Your task to perform on an android device: Search for seafood restaurants on Google Maps Image 0: 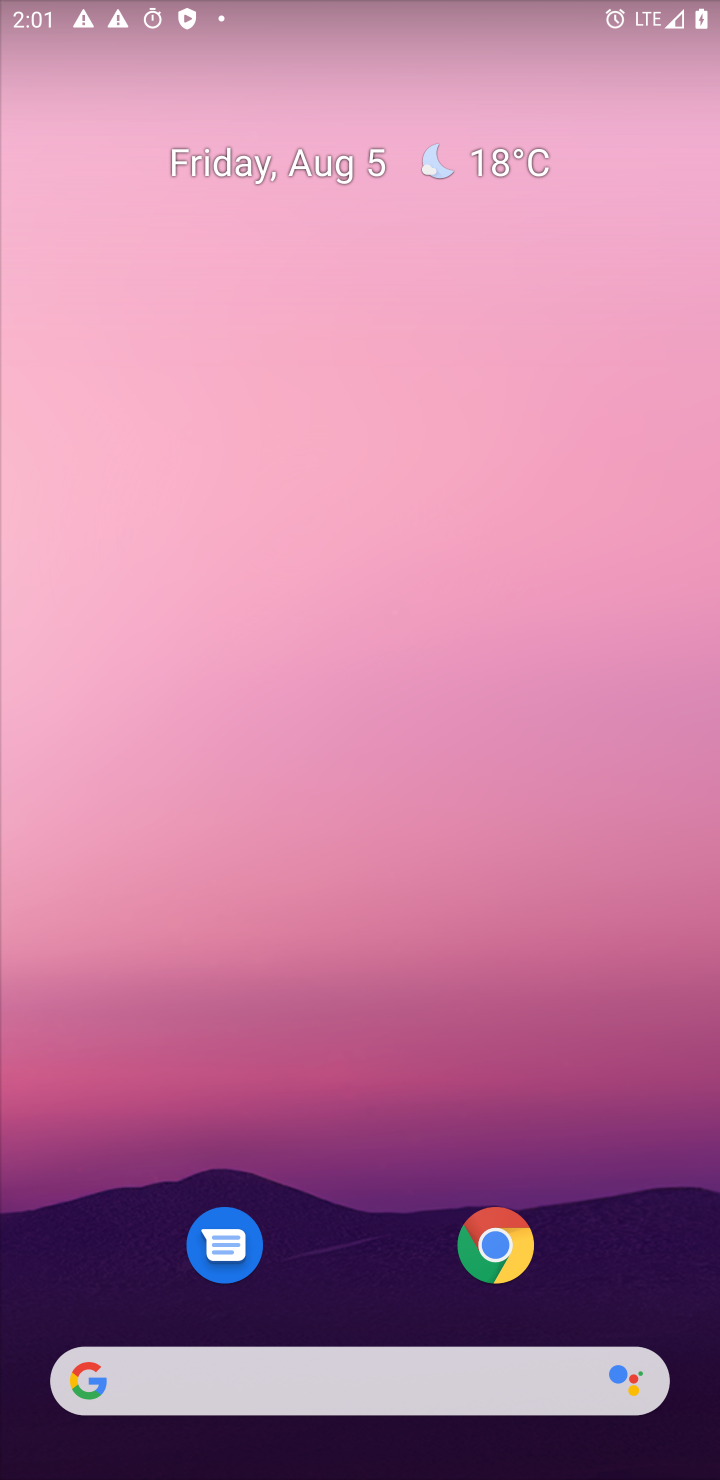
Step 0: drag from (360, 1322) to (291, 142)
Your task to perform on an android device: Search for seafood restaurants on Google Maps Image 1: 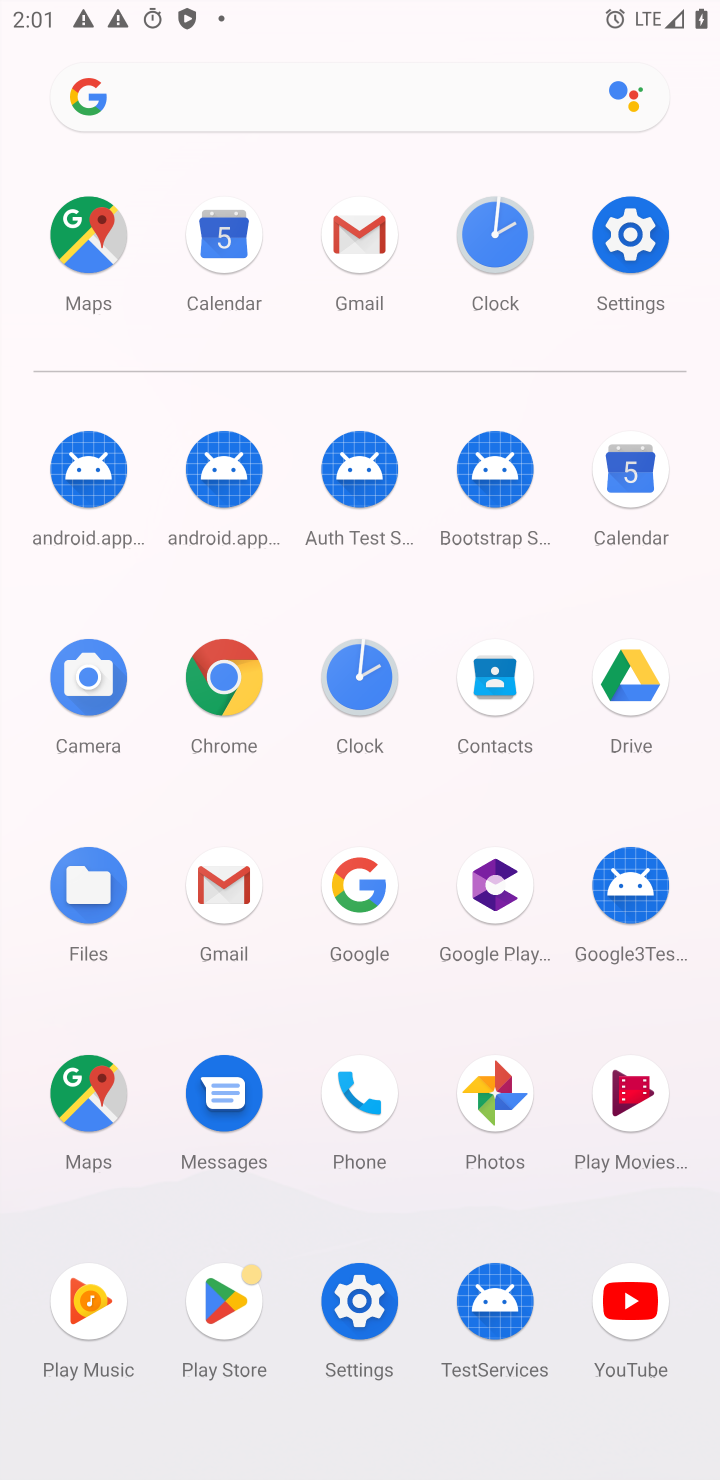
Step 1: click (86, 237)
Your task to perform on an android device: Search for seafood restaurants on Google Maps Image 2: 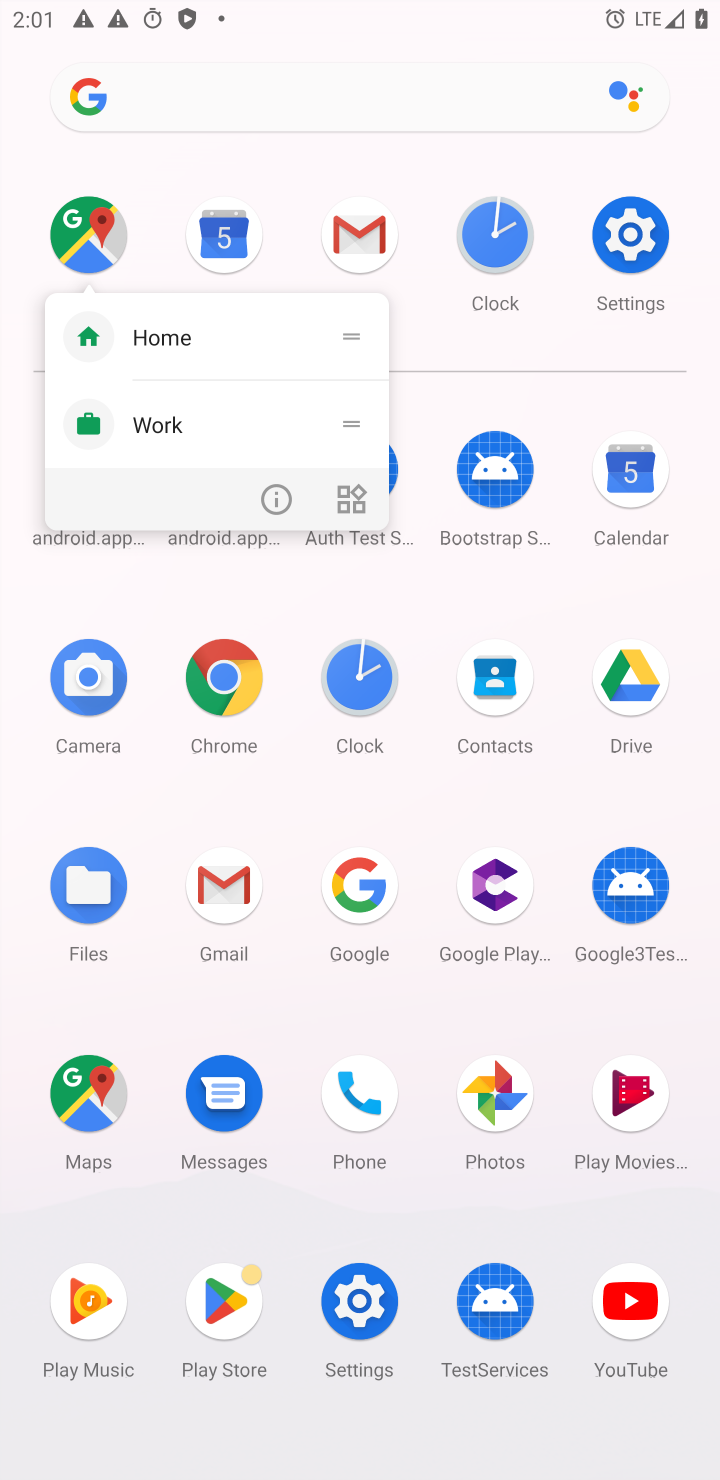
Step 2: click (86, 237)
Your task to perform on an android device: Search for seafood restaurants on Google Maps Image 3: 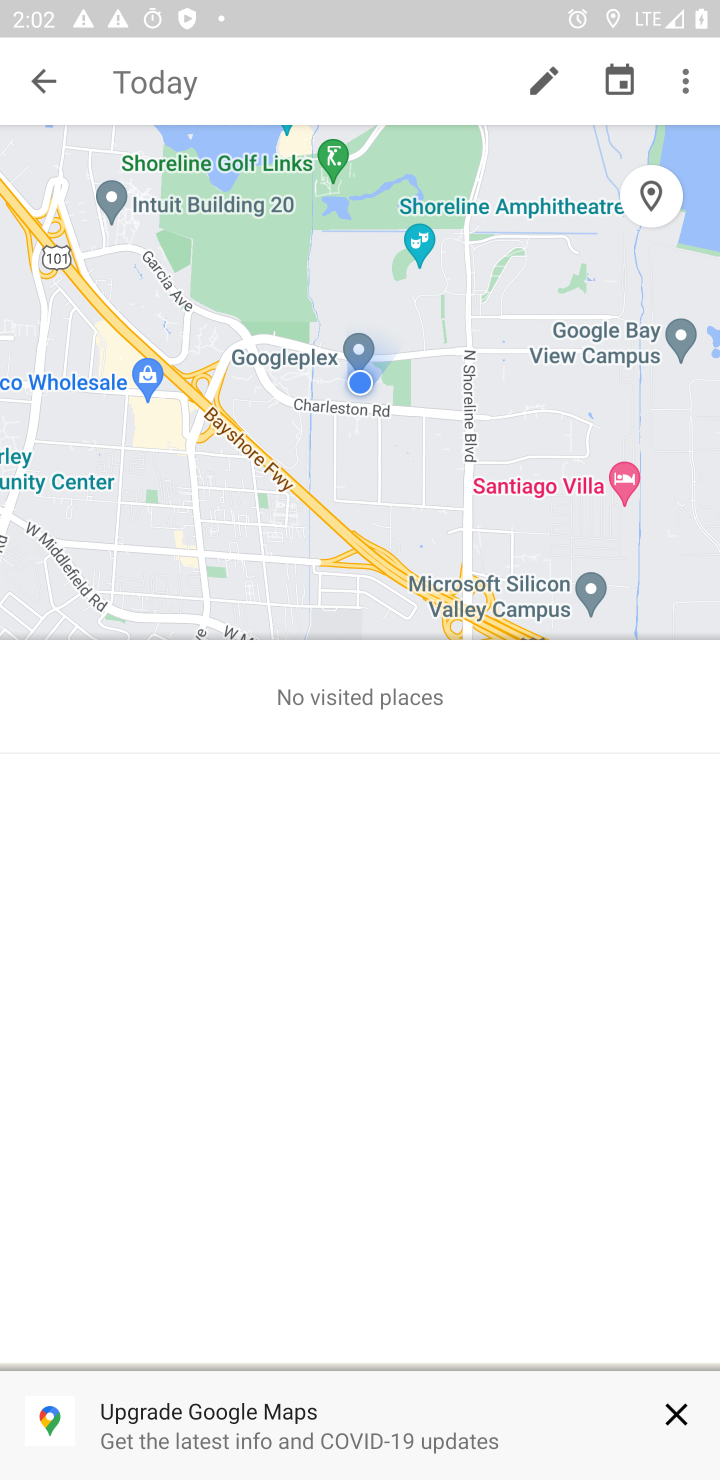
Step 3: click (42, 69)
Your task to perform on an android device: Search for seafood restaurants on Google Maps Image 4: 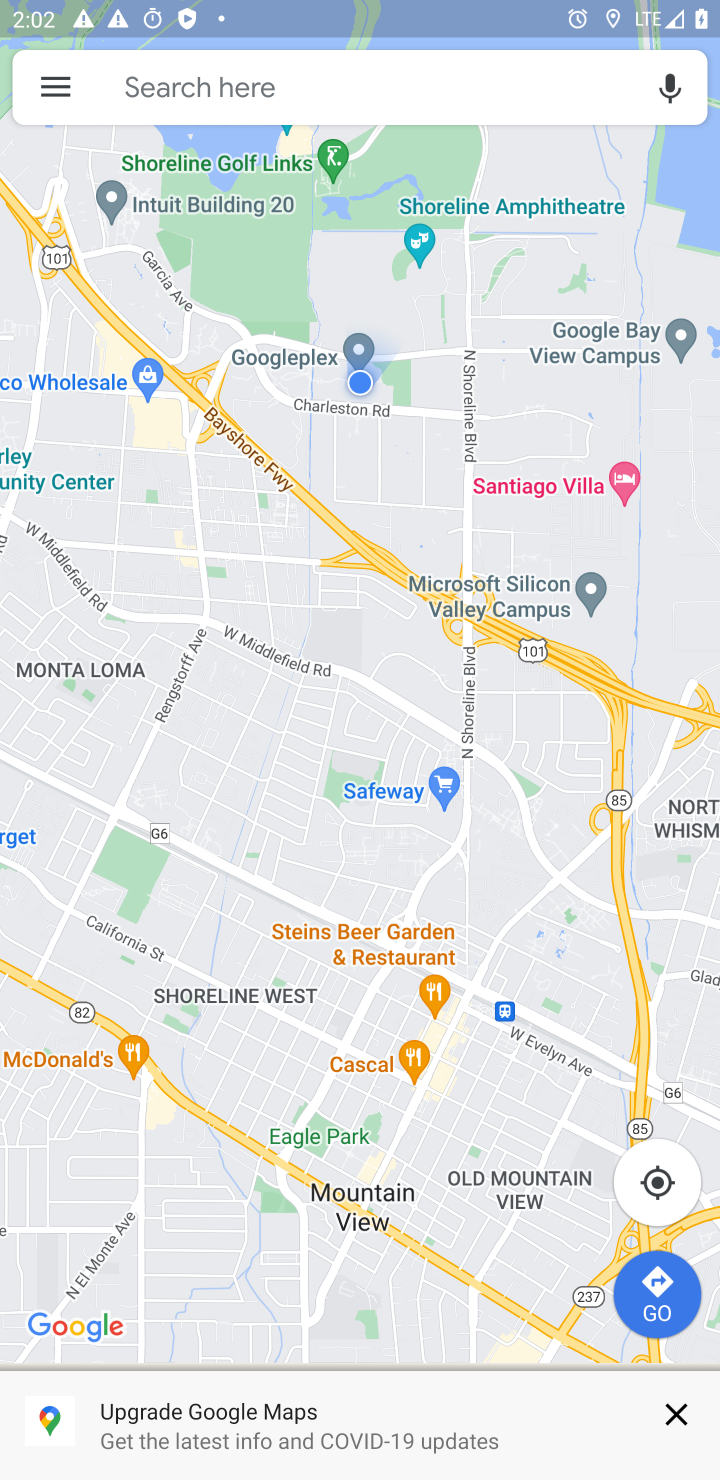
Step 4: click (289, 79)
Your task to perform on an android device: Search for seafood restaurants on Google Maps Image 5: 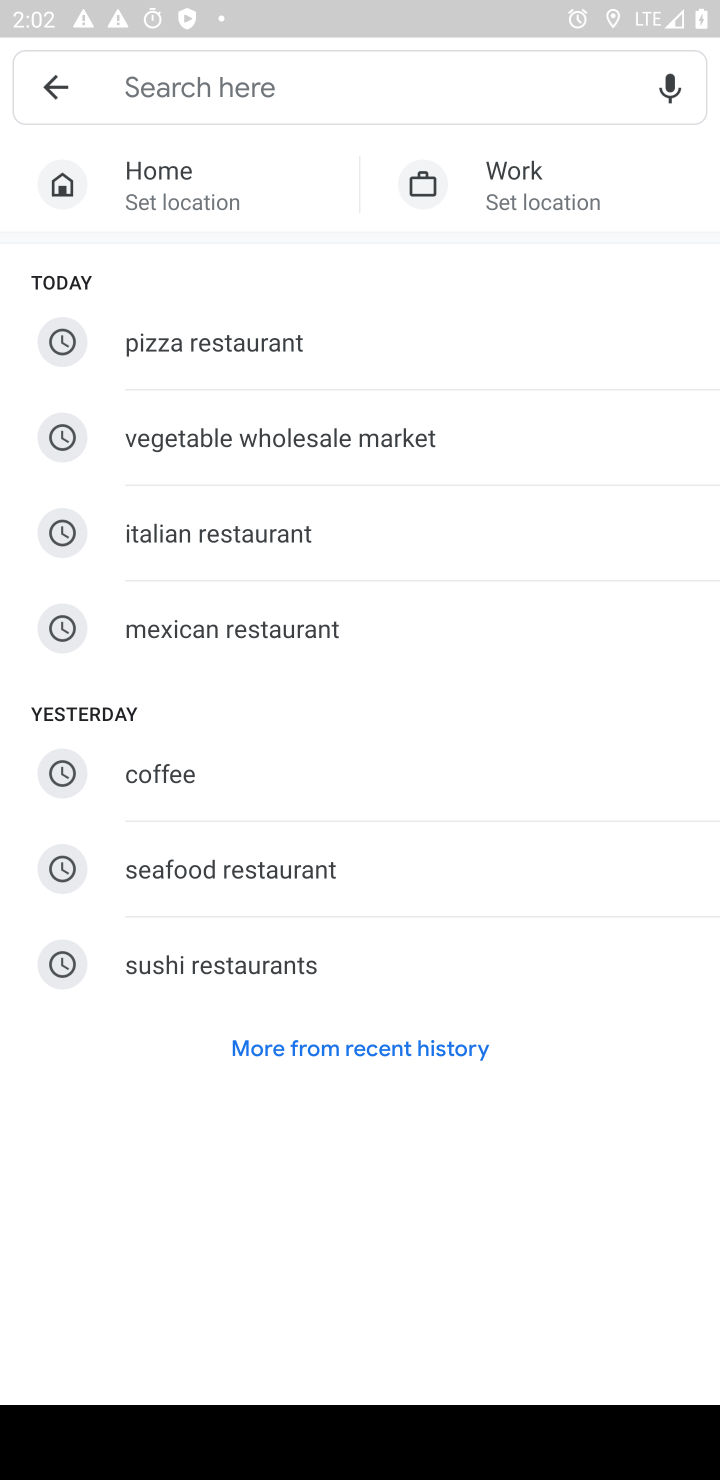
Step 5: click (236, 869)
Your task to perform on an android device: Search for seafood restaurants on Google Maps Image 6: 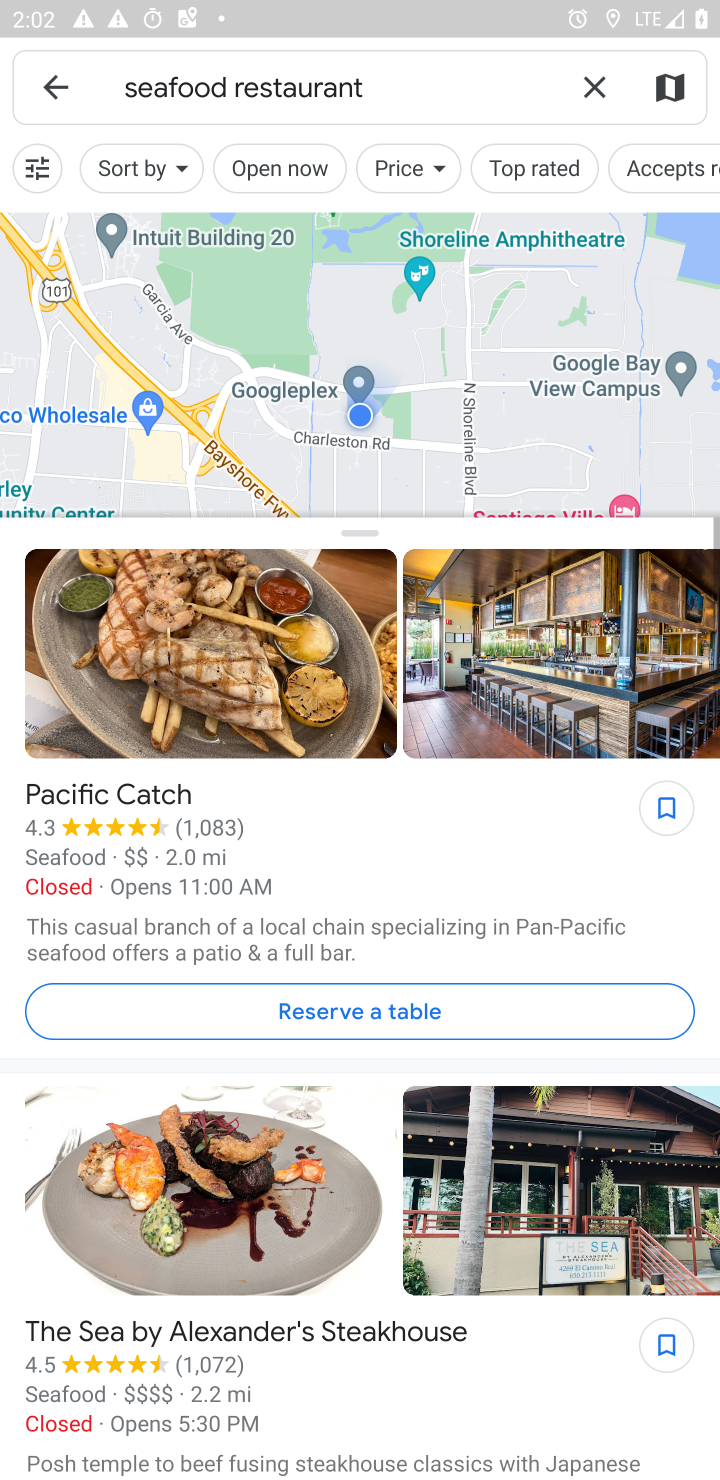
Step 6: task complete